Your task to perform on an android device: see tabs open on other devices in the chrome app Image 0: 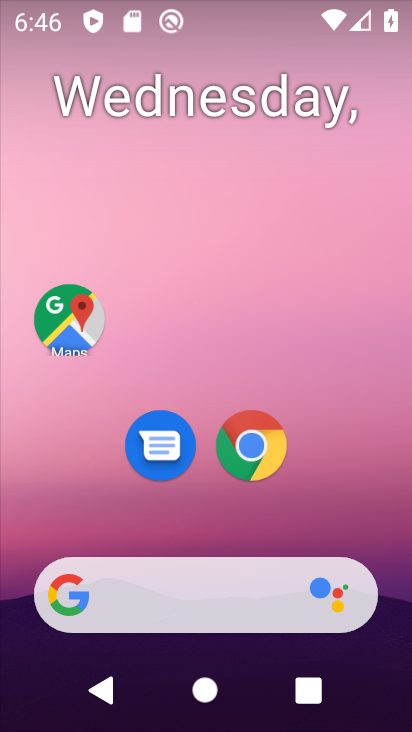
Step 0: click (255, 453)
Your task to perform on an android device: see tabs open on other devices in the chrome app Image 1: 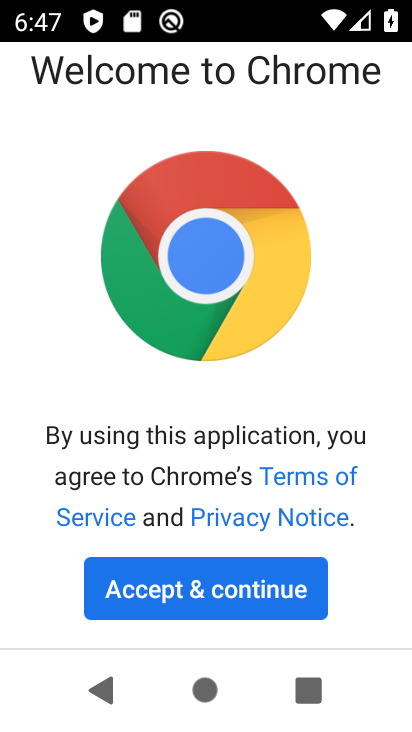
Step 1: click (258, 571)
Your task to perform on an android device: see tabs open on other devices in the chrome app Image 2: 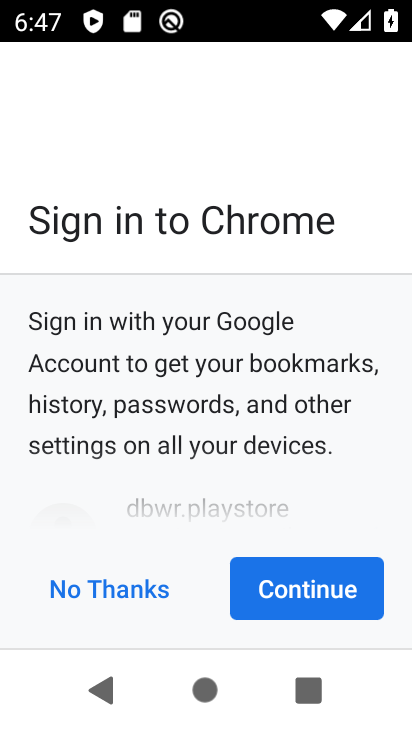
Step 2: click (313, 586)
Your task to perform on an android device: see tabs open on other devices in the chrome app Image 3: 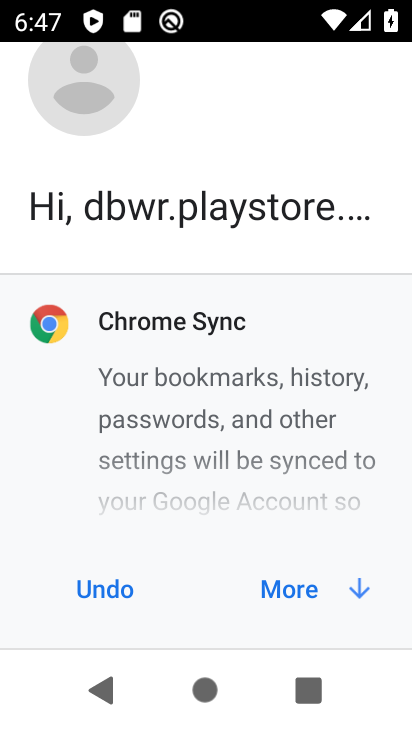
Step 3: click (315, 595)
Your task to perform on an android device: see tabs open on other devices in the chrome app Image 4: 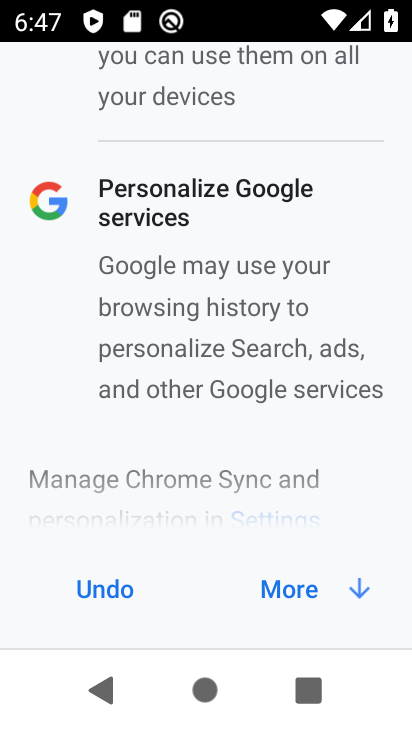
Step 4: click (315, 595)
Your task to perform on an android device: see tabs open on other devices in the chrome app Image 5: 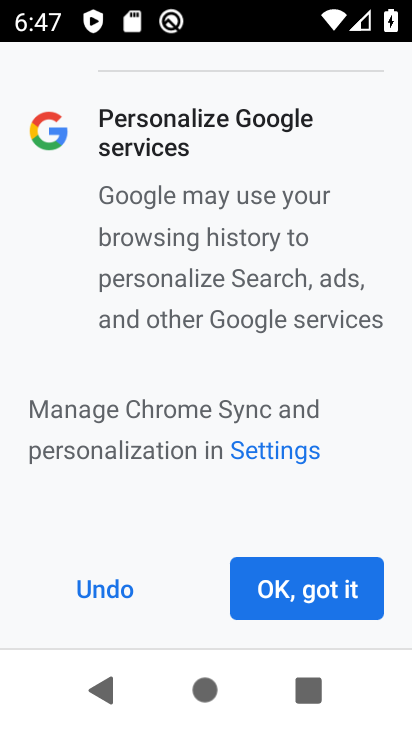
Step 5: click (367, 568)
Your task to perform on an android device: see tabs open on other devices in the chrome app Image 6: 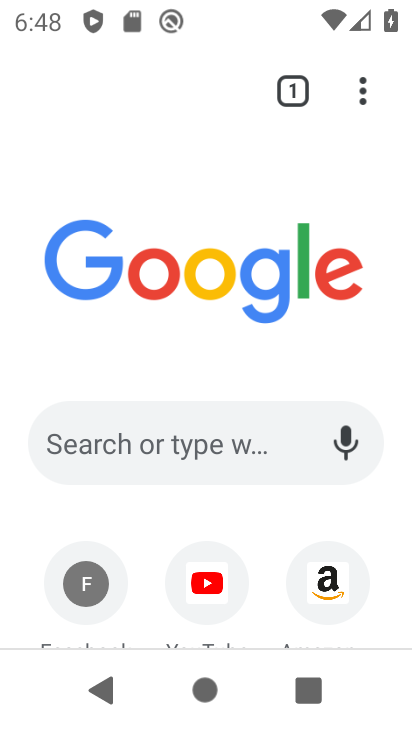
Step 6: task complete